Your task to perform on an android device: Open calendar and show me the fourth week of next month Image 0: 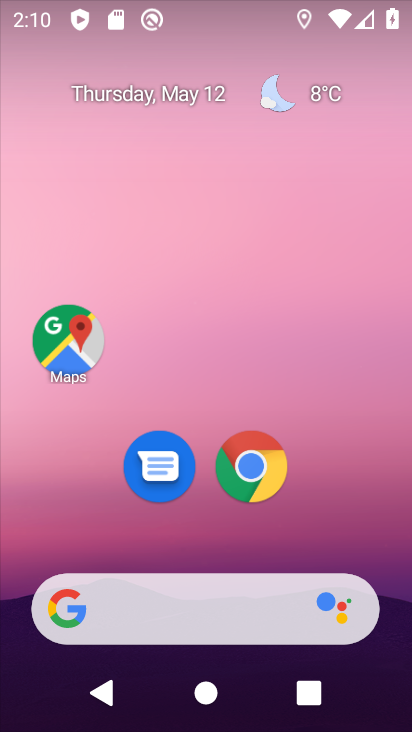
Step 0: drag from (289, 535) to (241, 178)
Your task to perform on an android device: Open calendar and show me the fourth week of next month Image 1: 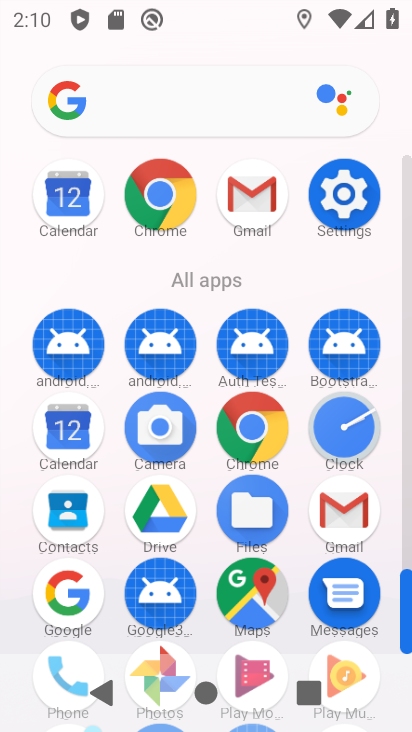
Step 1: click (53, 203)
Your task to perform on an android device: Open calendar and show me the fourth week of next month Image 2: 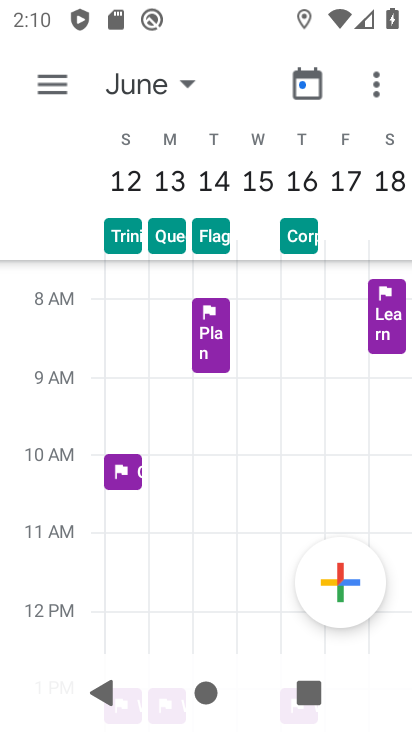
Step 2: task complete